Your task to perform on an android device: search for starred emails in the gmail app Image 0: 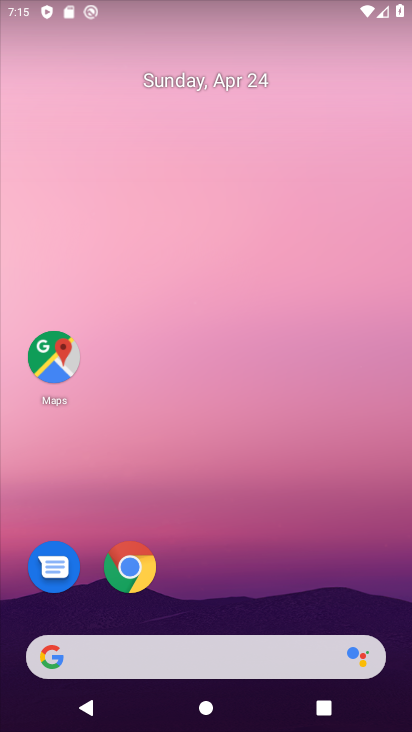
Step 0: drag from (193, 398) to (138, 250)
Your task to perform on an android device: search for starred emails in the gmail app Image 1: 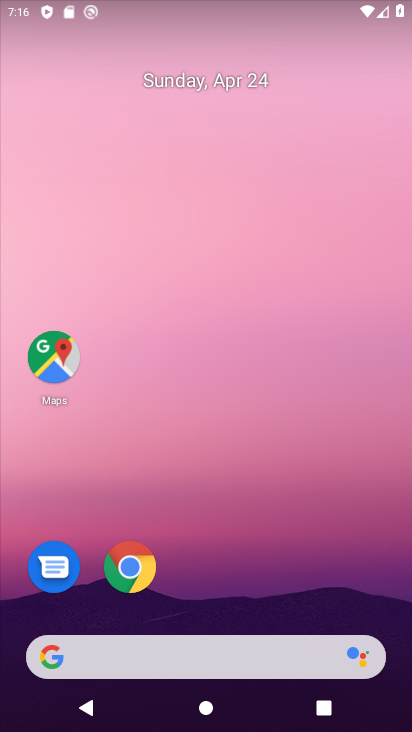
Step 1: drag from (223, 677) to (193, 155)
Your task to perform on an android device: search for starred emails in the gmail app Image 2: 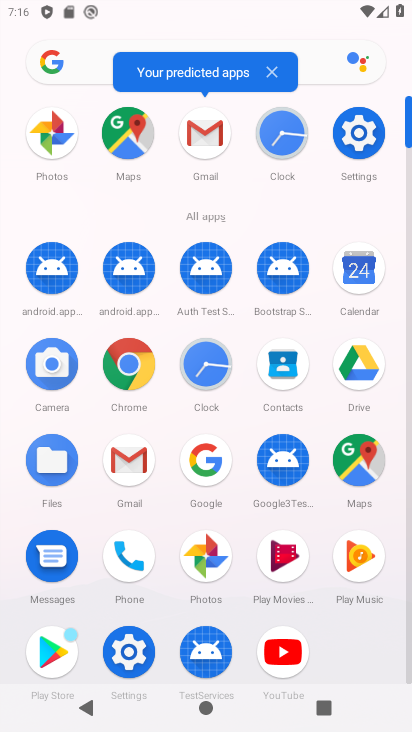
Step 2: click (195, 143)
Your task to perform on an android device: search for starred emails in the gmail app Image 3: 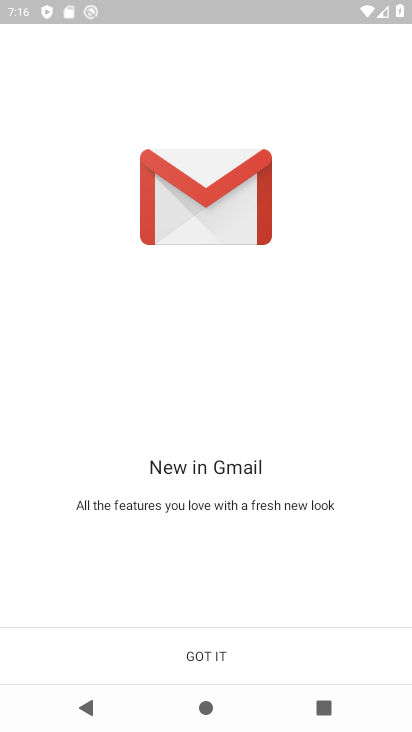
Step 3: click (205, 651)
Your task to perform on an android device: search for starred emails in the gmail app Image 4: 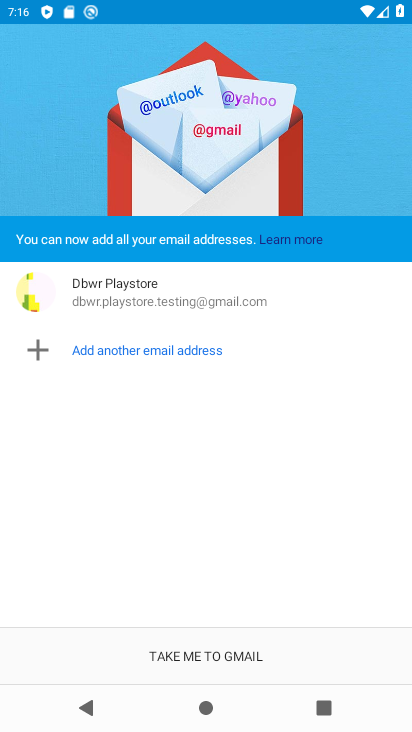
Step 4: click (188, 658)
Your task to perform on an android device: search for starred emails in the gmail app Image 5: 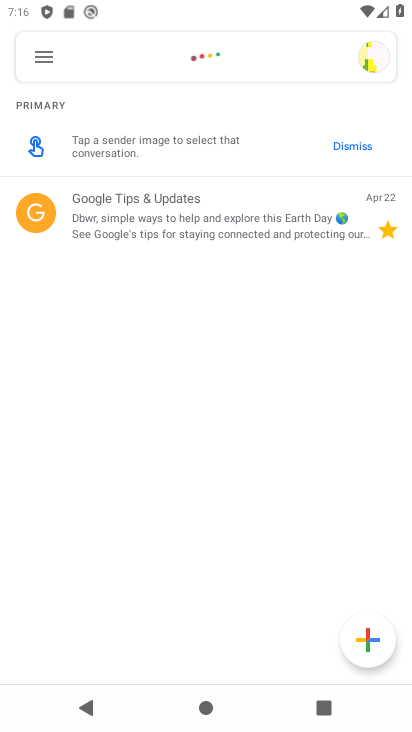
Step 5: click (33, 65)
Your task to perform on an android device: search for starred emails in the gmail app Image 6: 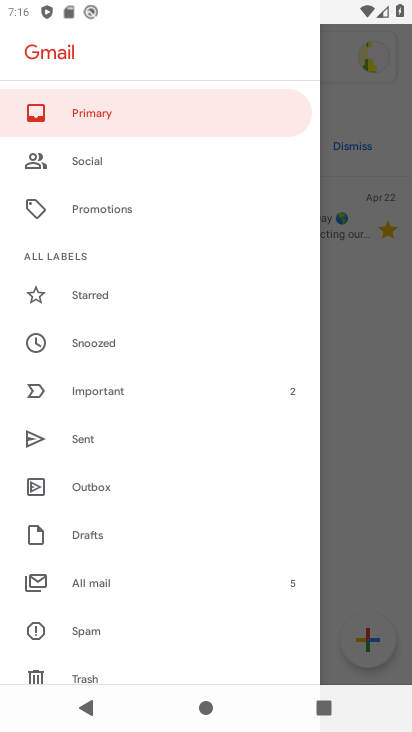
Step 6: click (97, 289)
Your task to perform on an android device: search for starred emails in the gmail app Image 7: 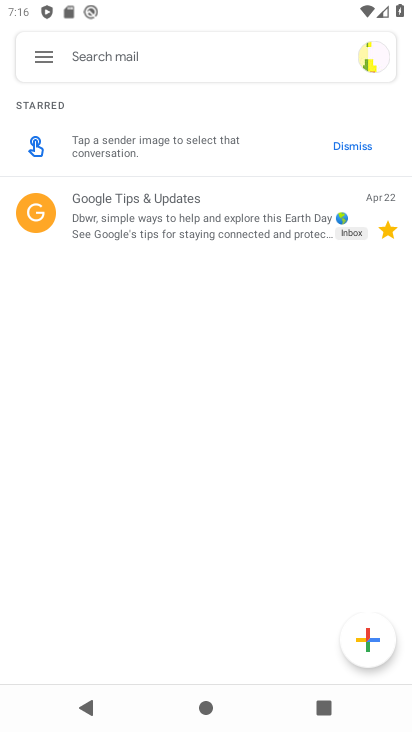
Step 7: task complete